Your task to perform on an android device: change timer sound Image 0: 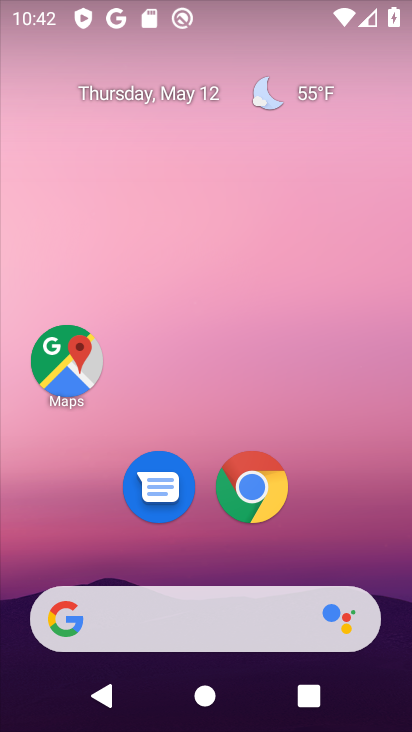
Step 0: drag from (367, 563) to (370, 29)
Your task to perform on an android device: change timer sound Image 1: 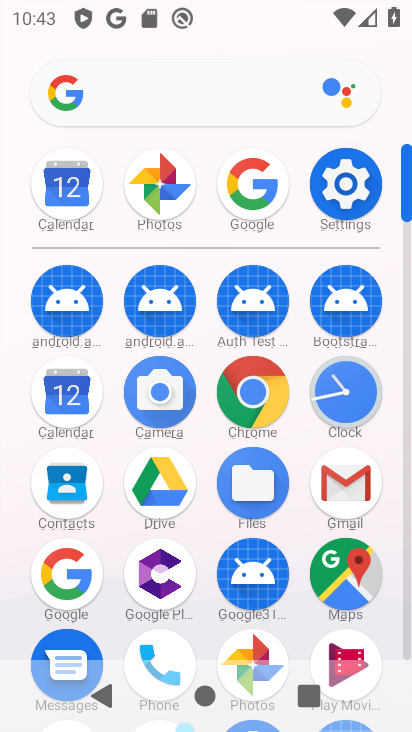
Step 1: click (362, 404)
Your task to perform on an android device: change timer sound Image 2: 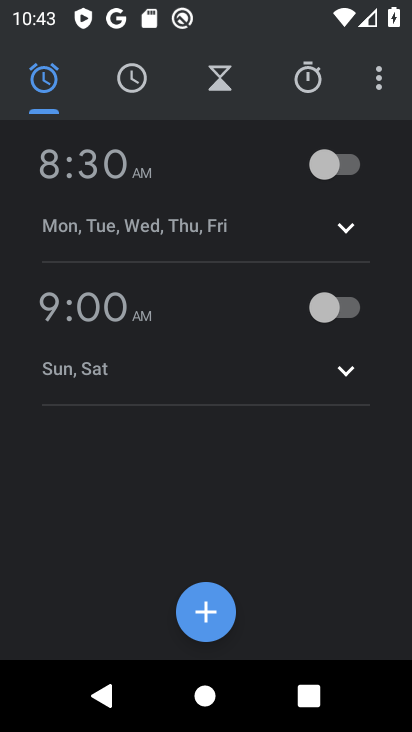
Step 2: click (387, 80)
Your task to perform on an android device: change timer sound Image 3: 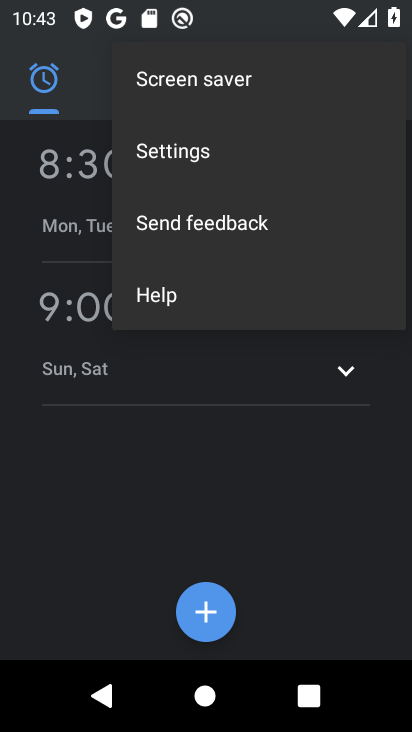
Step 3: click (191, 157)
Your task to perform on an android device: change timer sound Image 4: 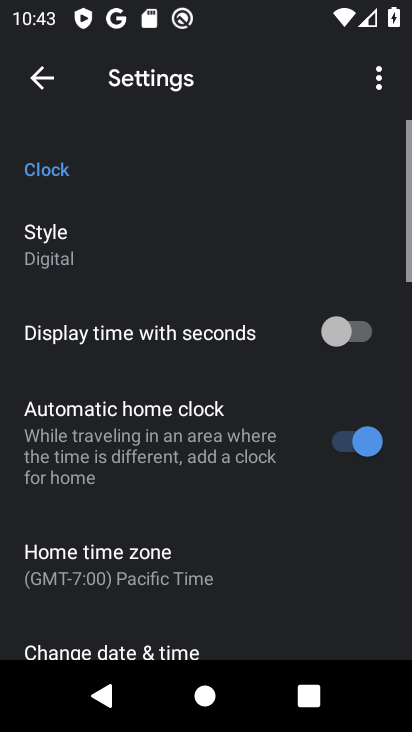
Step 4: drag from (163, 456) to (147, 1)
Your task to perform on an android device: change timer sound Image 5: 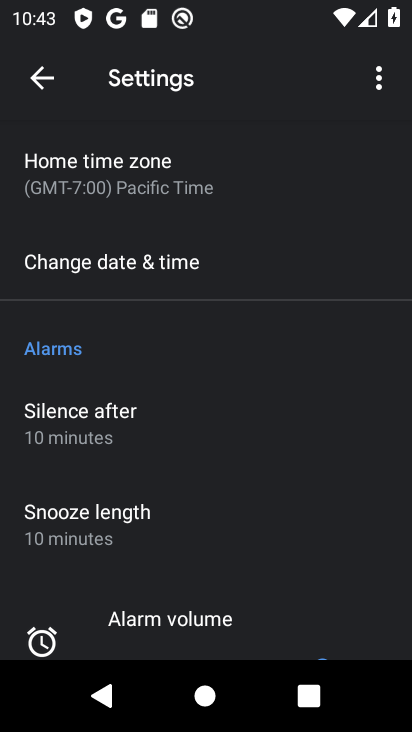
Step 5: drag from (148, 343) to (133, 83)
Your task to perform on an android device: change timer sound Image 6: 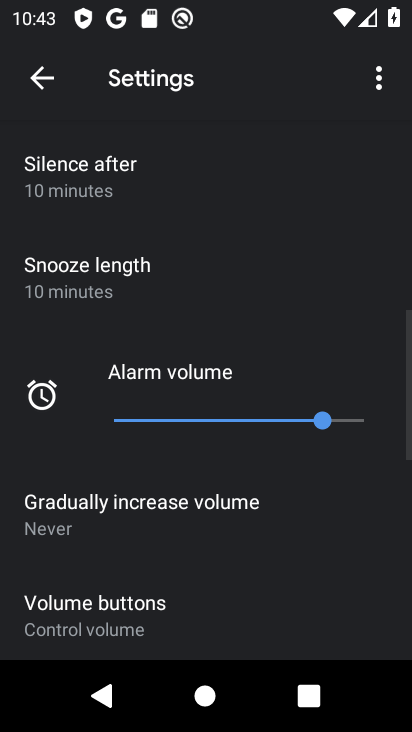
Step 6: drag from (127, 441) to (117, 90)
Your task to perform on an android device: change timer sound Image 7: 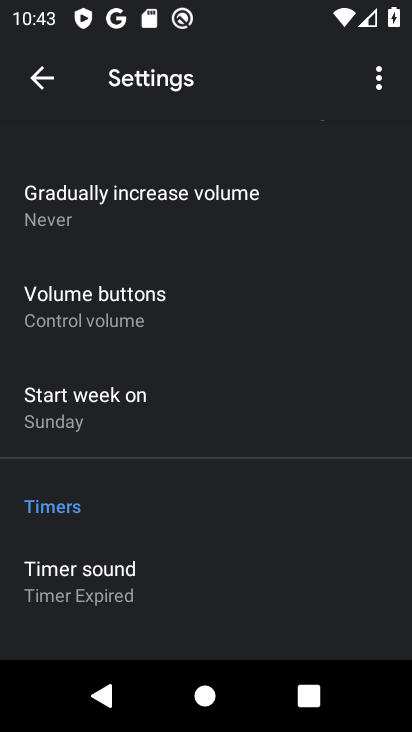
Step 7: drag from (162, 447) to (147, 171)
Your task to perform on an android device: change timer sound Image 8: 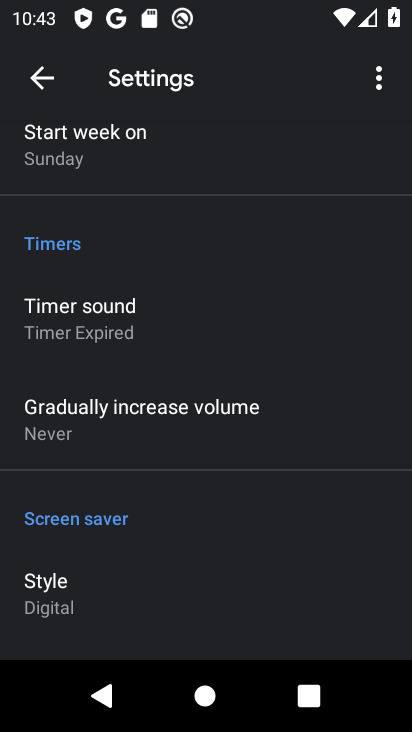
Step 8: click (100, 322)
Your task to perform on an android device: change timer sound Image 9: 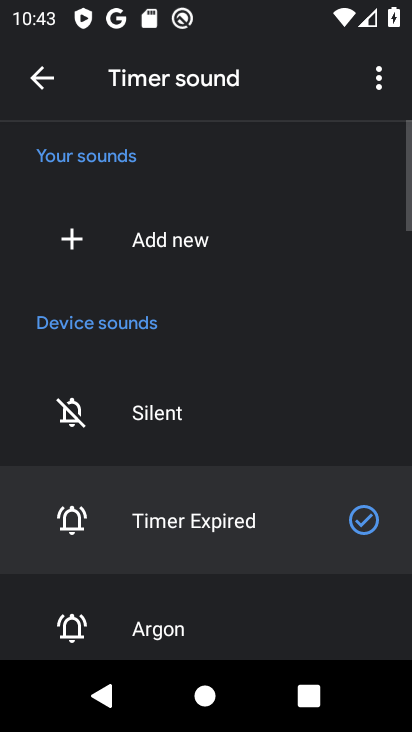
Step 9: drag from (165, 549) to (166, 245)
Your task to perform on an android device: change timer sound Image 10: 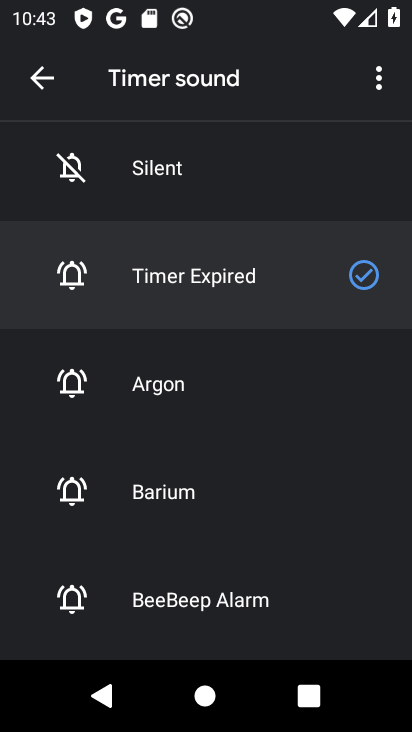
Step 10: click (141, 391)
Your task to perform on an android device: change timer sound Image 11: 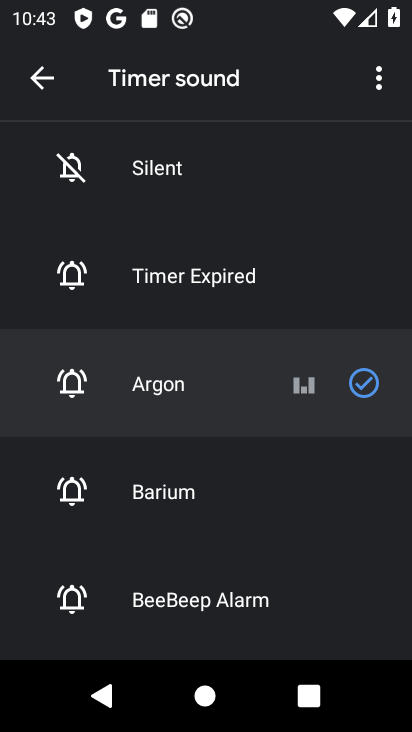
Step 11: task complete